Your task to perform on an android device: Search for pizza restaurants on Maps Image 0: 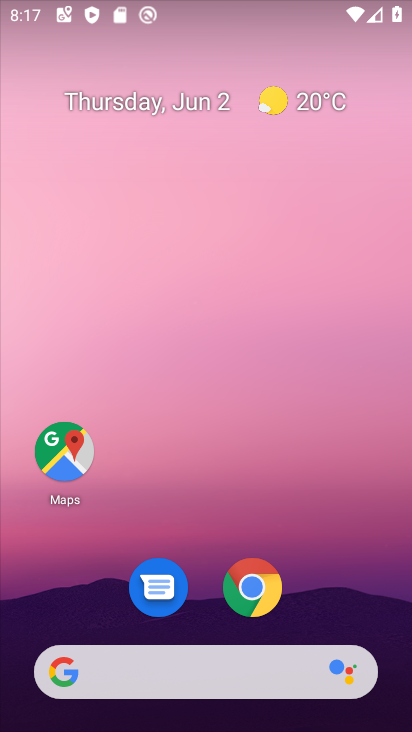
Step 0: click (63, 432)
Your task to perform on an android device: Search for pizza restaurants on Maps Image 1: 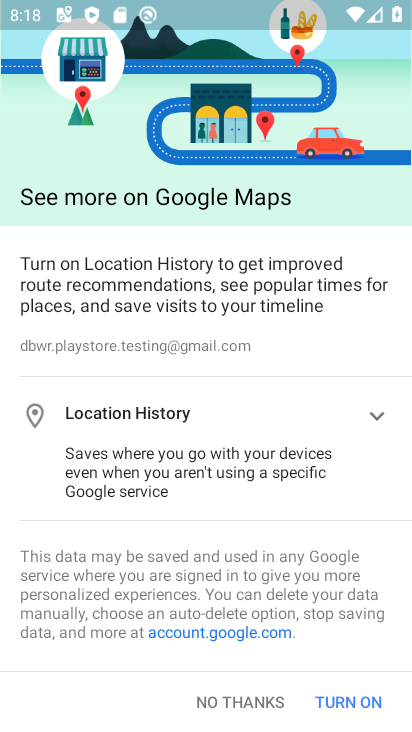
Step 1: click (365, 718)
Your task to perform on an android device: Search for pizza restaurants on Maps Image 2: 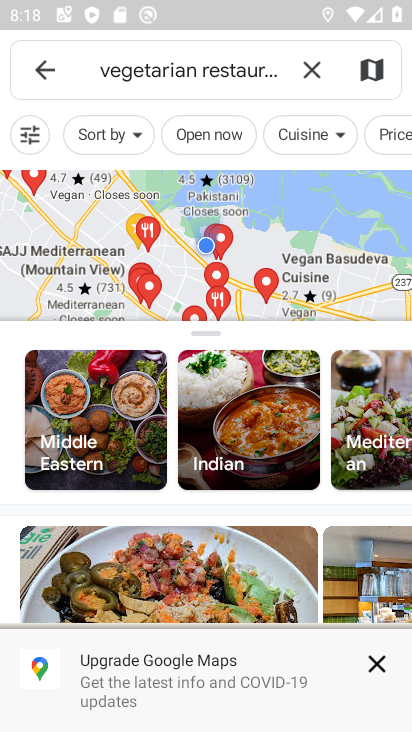
Step 2: click (311, 63)
Your task to perform on an android device: Search for pizza restaurants on Maps Image 3: 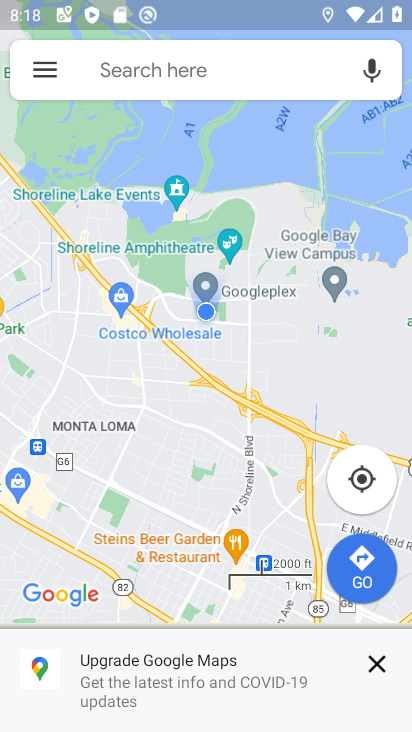
Step 3: click (158, 77)
Your task to perform on an android device: Search for pizza restaurants on Maps Image 4: 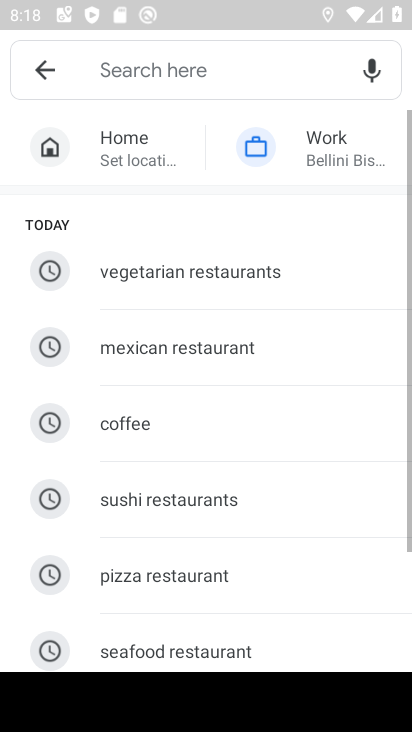
Step 4: click (195, 551)
Your task to perform on an android device: Search for pizza restaurants on Maps Image 5: 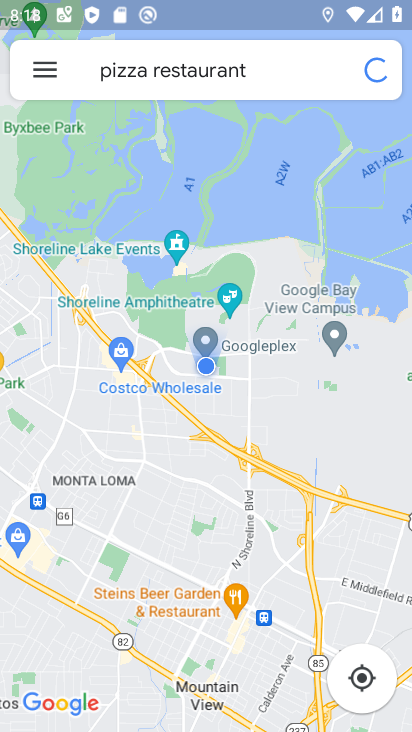
Step 5: click (195, 551)
Your task to perform on an android device: Search for pizza restaurants on Maps Image 6: 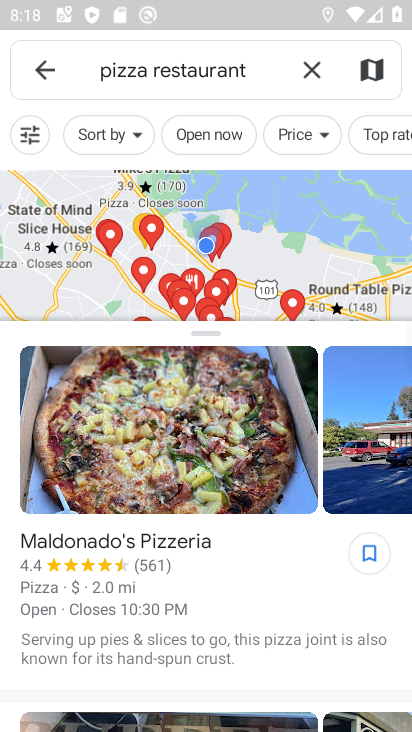
Step 6: task complete